Your task to perform on an android device: open app "Cash App" Image 0: 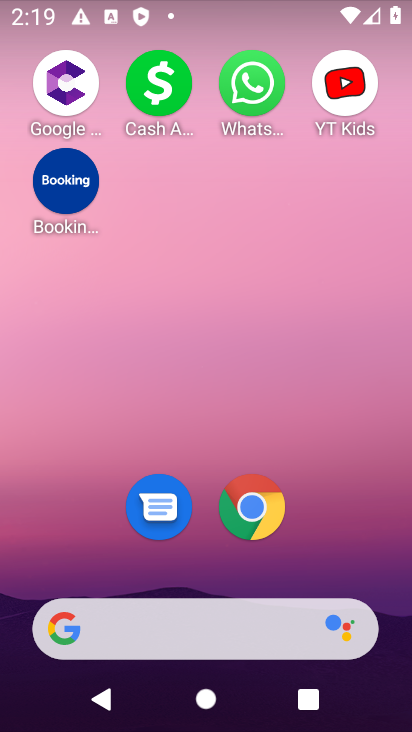
Step 0: drag from (240, 378) to (326, 48)
Your task to perform on an android device: open app "Cash App" Image 1: 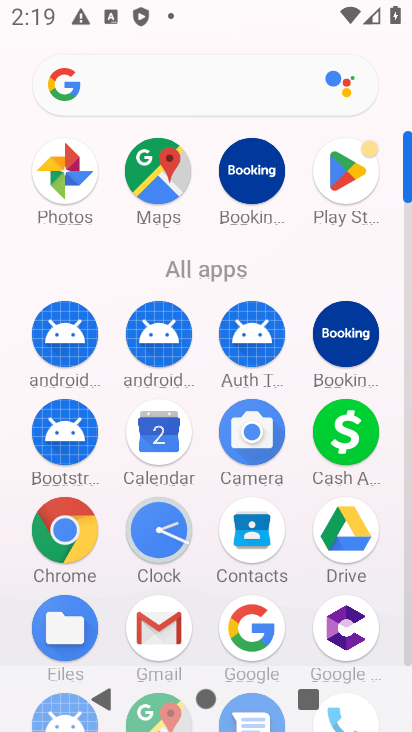
Step 1: click (343, 175)
Your task to perform on an android device: open app "Cash App" Image 2: 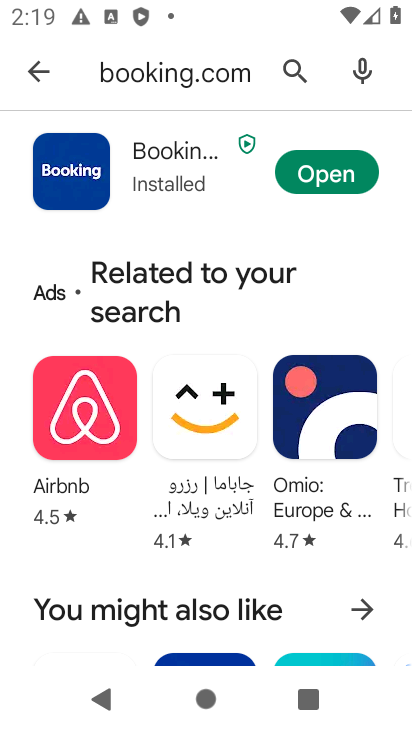
Step 2: click (194, 81)
Your task to perform on an android device: open app "Cash App" Image 3: 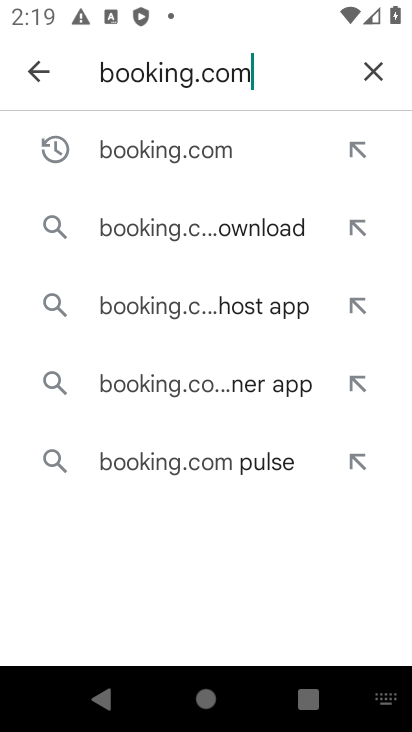
Step 3: click (363, 65)
Your task to perform on an android device: open app "Cash App" Image 4: 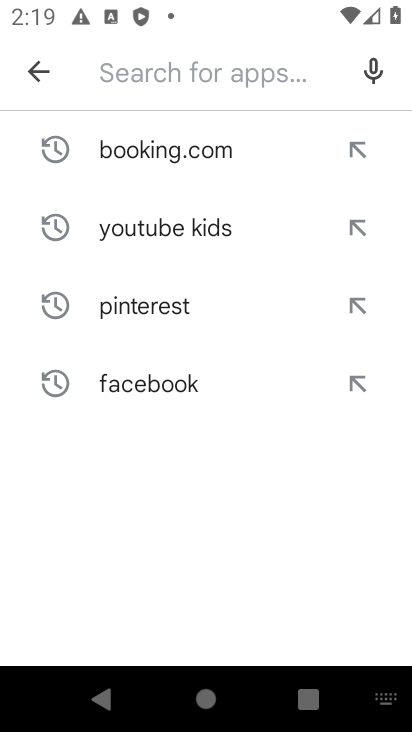
Step 4: type "cashapp"
Your task to perform on an android device: open app "Cash App" Image 5: 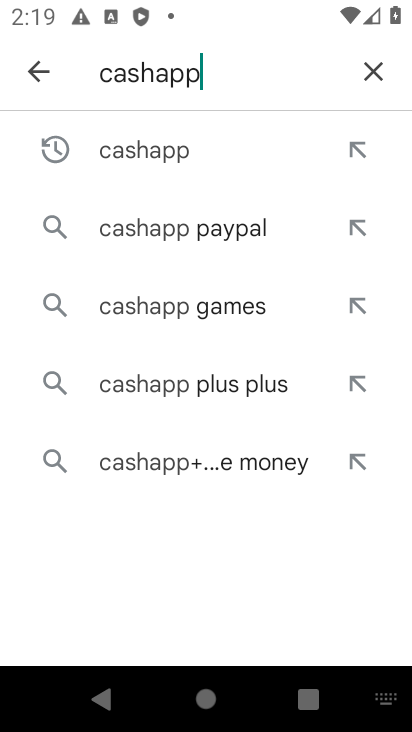
Step 5: click (179, 160)
Your task to perform on an android device: open app "Cash App" Image 6: 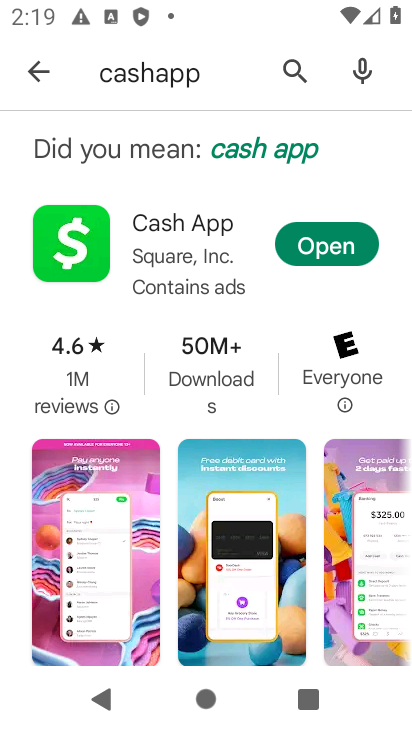
Step 6: click (341, 243)
Your task to perform on an android device: open app "Cash App" Image 7: 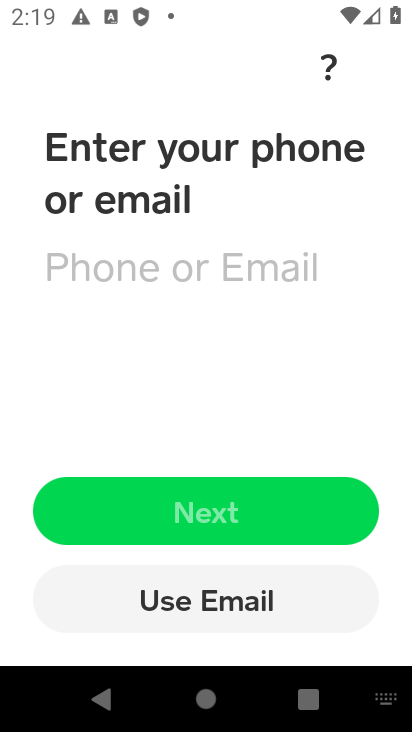
Step 7: drag from (204, 559) to (189, 251)
Your task to perform on an android device: open app "Cash App" Image 8: 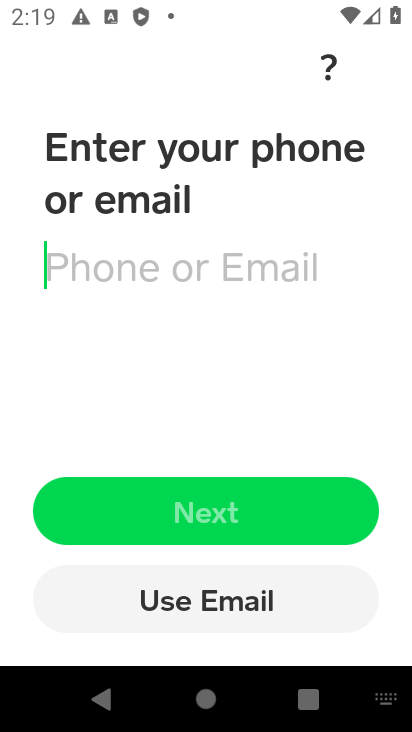
Step 8: click (331, 76)
Your task to perform on an android device: open app "Cash App" Image 9: 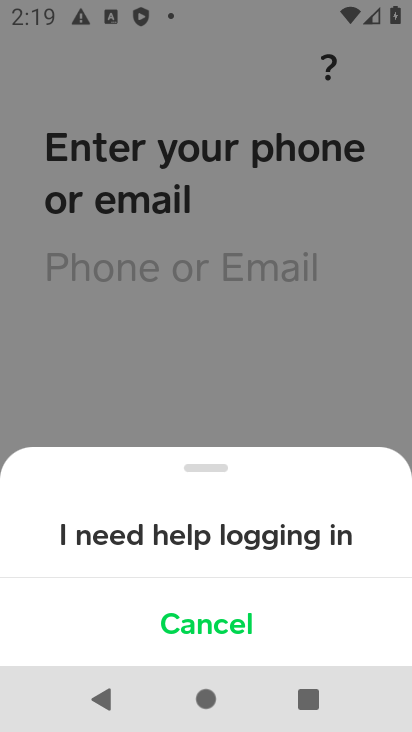
Step 9: click (214, 621)
Your task to perform on an android device: open app "Cash App" Image 10: 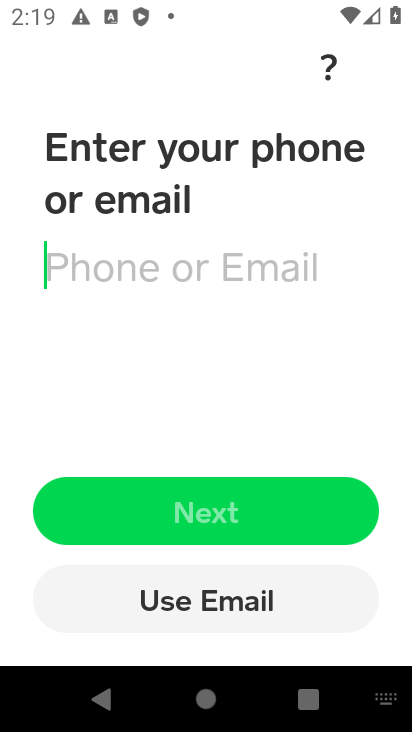
Step 10: click (232, 604)
Your task to perform on an android device: open app "Cash App" Image 11: 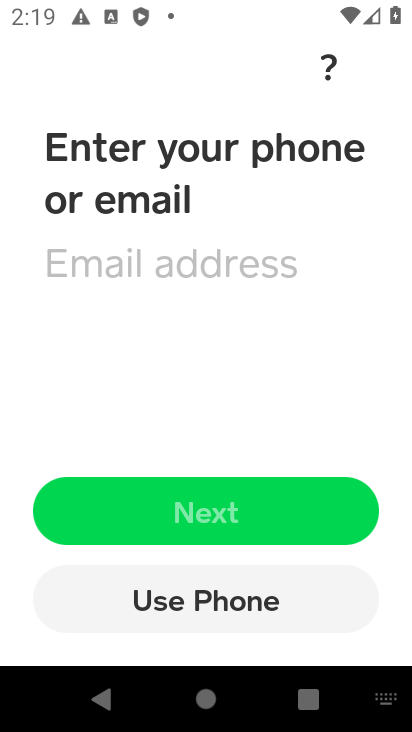
Step 11: task complete